Your task to perform on an android device: Go to Google Image 0: 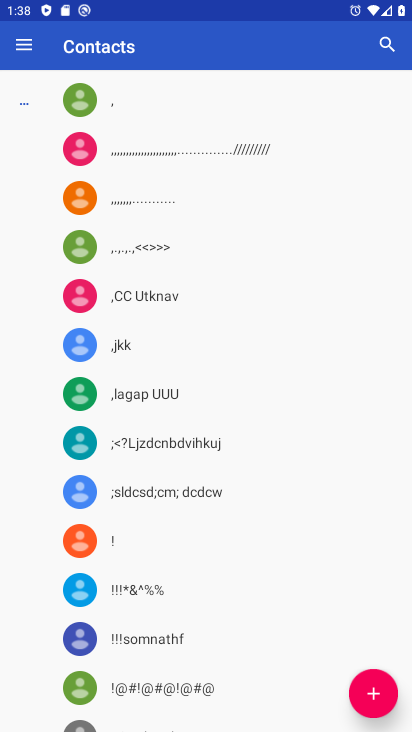
Step 0: press home button
Your task to perform on an android device: Go to Google Image 1: 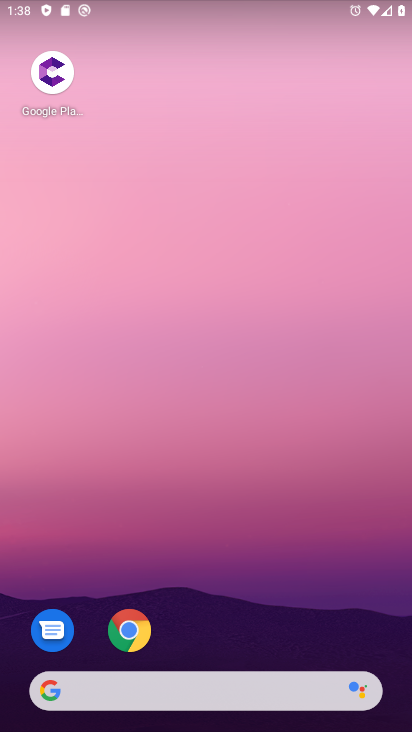
Step 1: drag from (363, 511) to (360, 153)
Your task to perform on an android device: Go to Google Image 2: 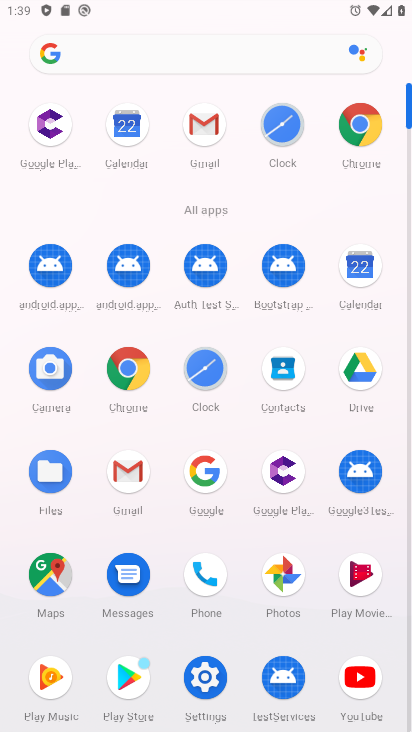
Step 2: click (202, 480)
Your task to perform on an android device: Go to Google Image 3: 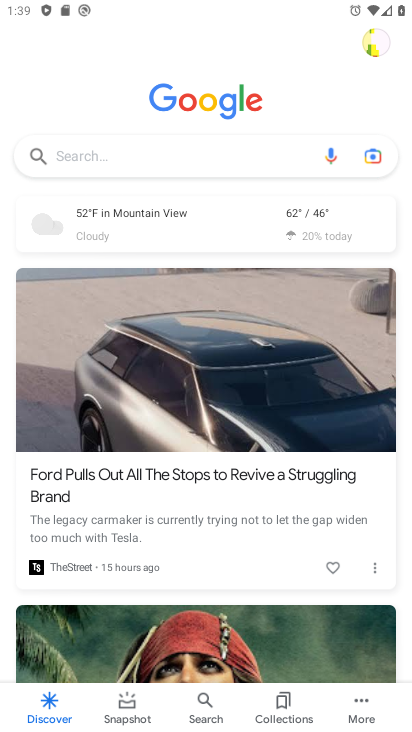
Step 3: task complete